Your task to perform on an android device: open app "ZOOM Cloud Meetings" (install if not already installed) Image 0: 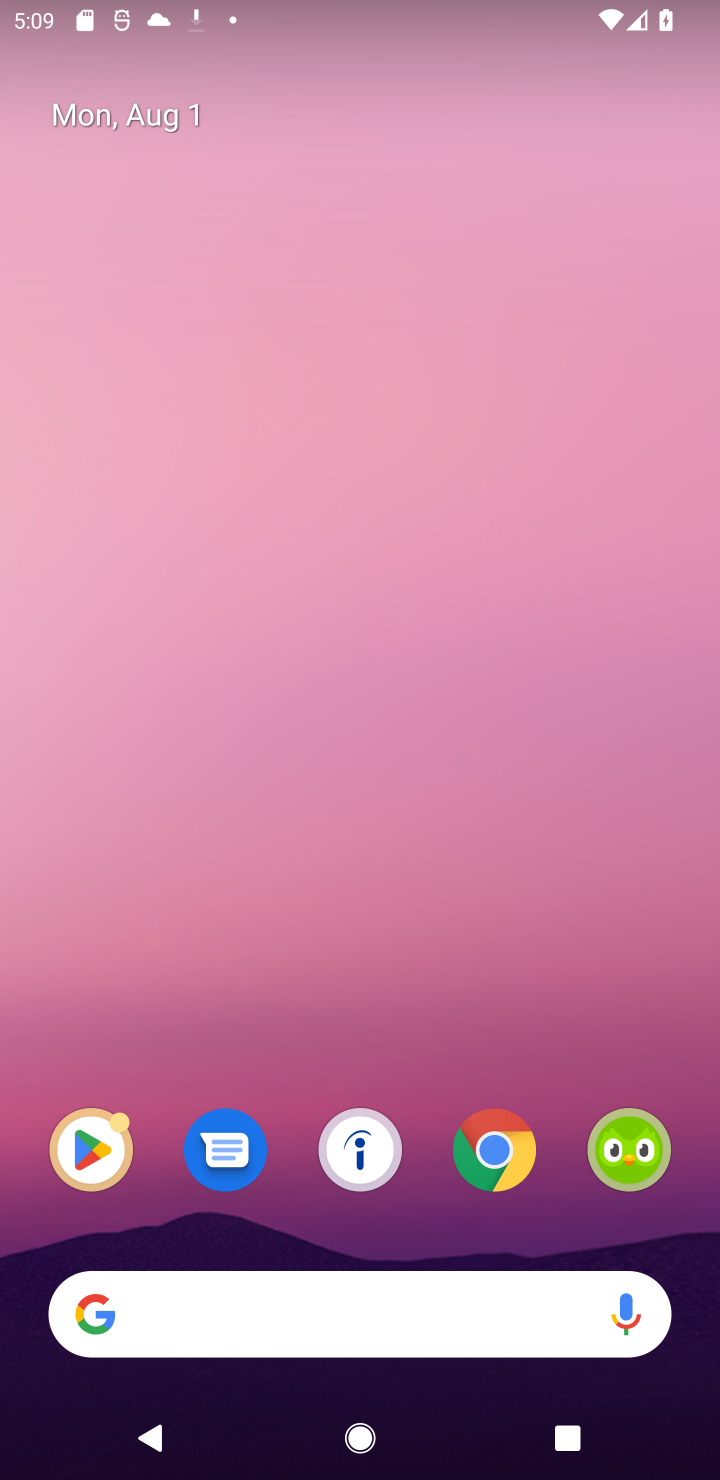
Step 0: drag from (296, 1248) to (288, 100)
Your task to perform on an android device: open app "ZOOM Cloud Meetings" (install if not already installed) Image 1: 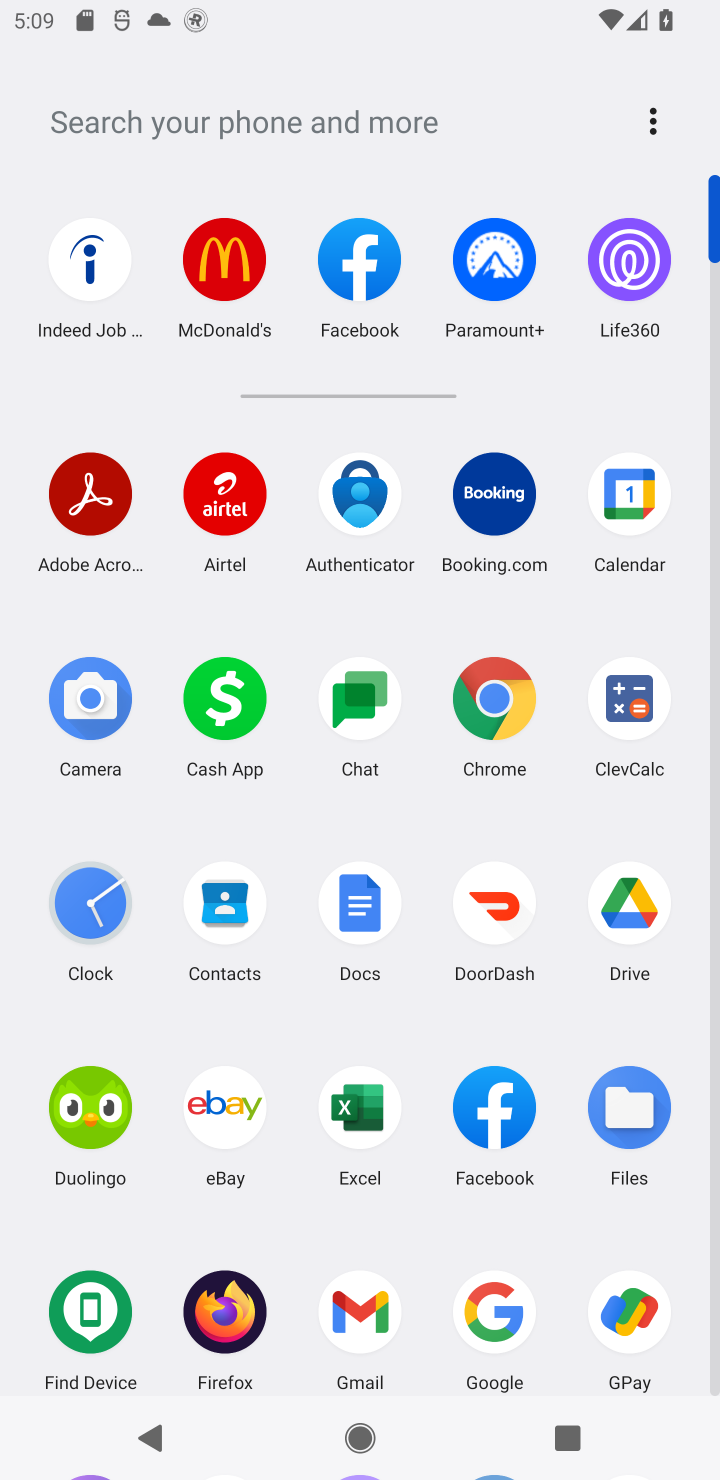
Step 1: click (714, 1365)
Your task to perform on an android device: open app "ZOOM Cloud Meetings" (install if not already installed) Image 2: 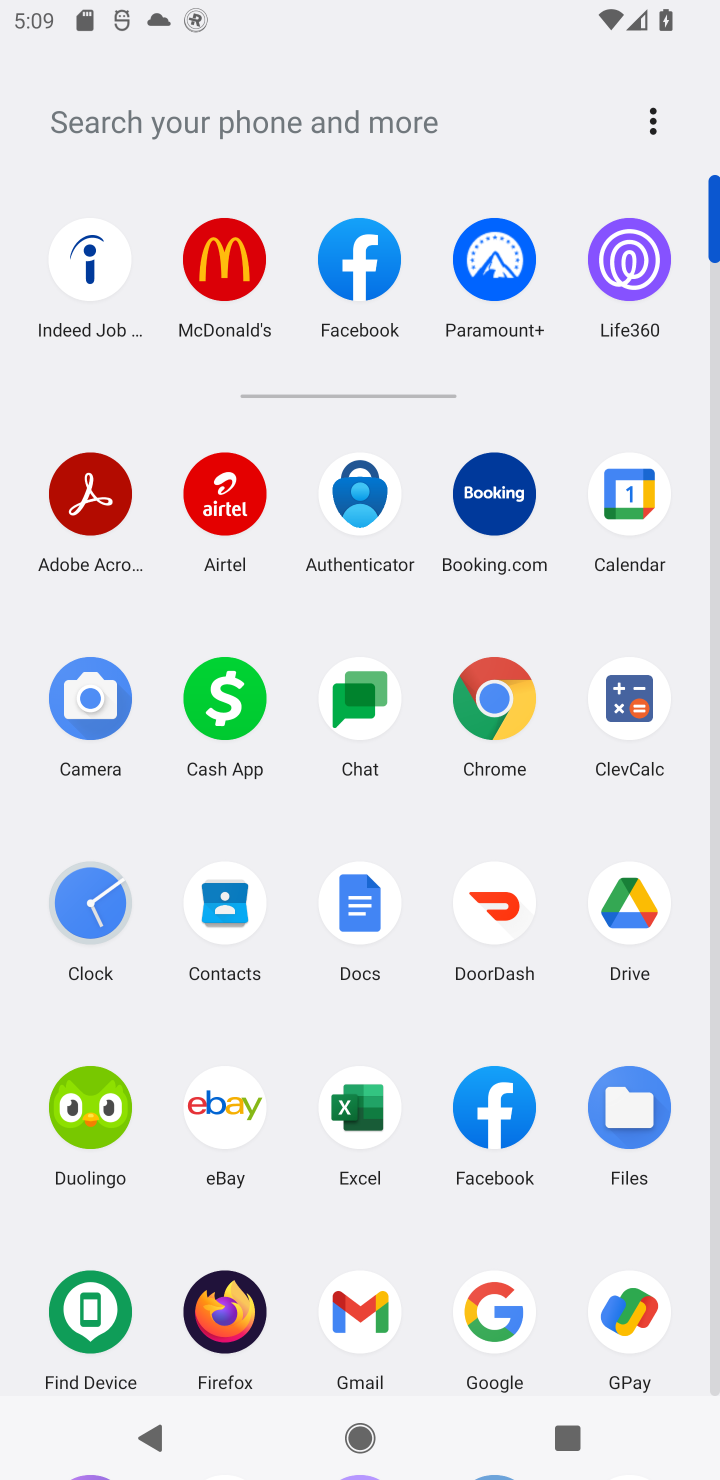
Step 2: click (714, 1377)
Your task to perform on an android device: open app "ZOOM Cloud Meetings" (install if not already installed) Image 3: 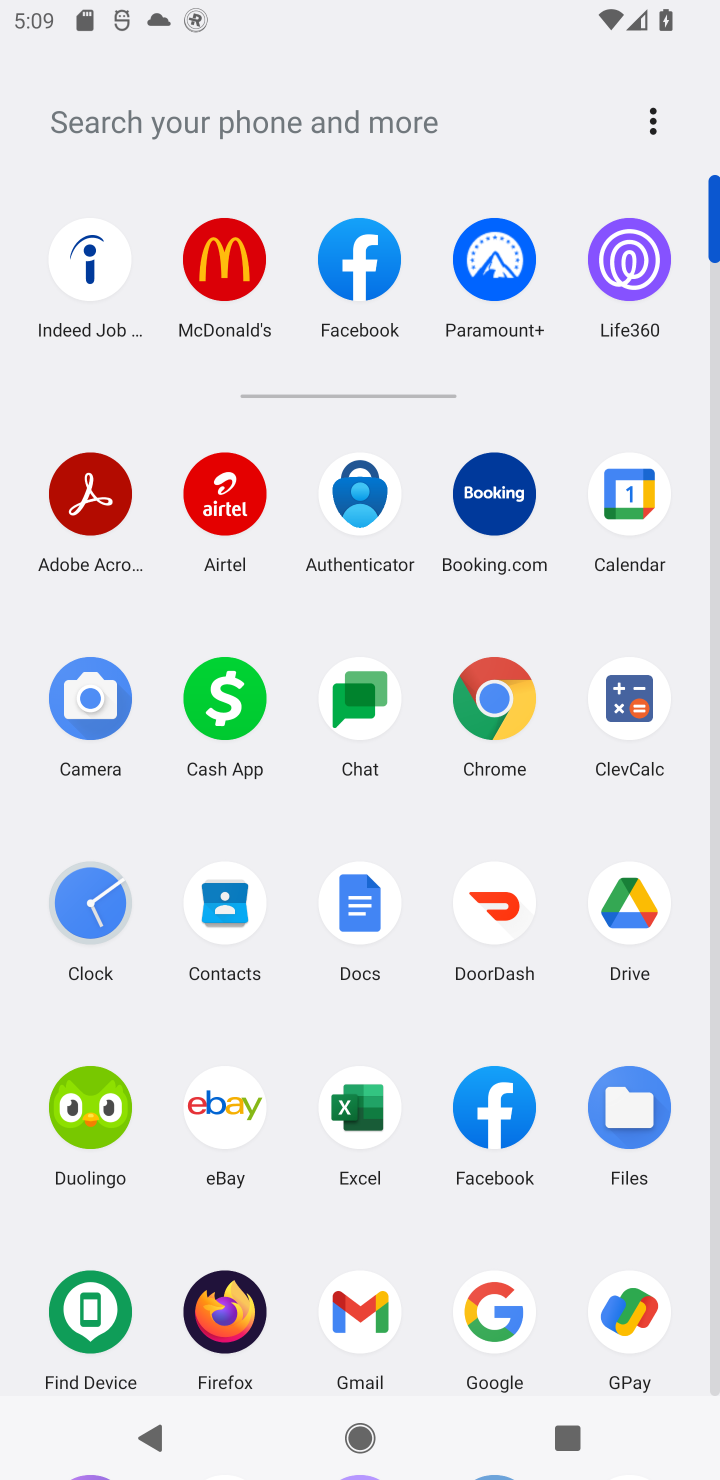
Step 3: click (714, 1377)
Your task to perform on an android device: open app "ZOOM Cloud Meetings" (install if not already installed) Image 4: 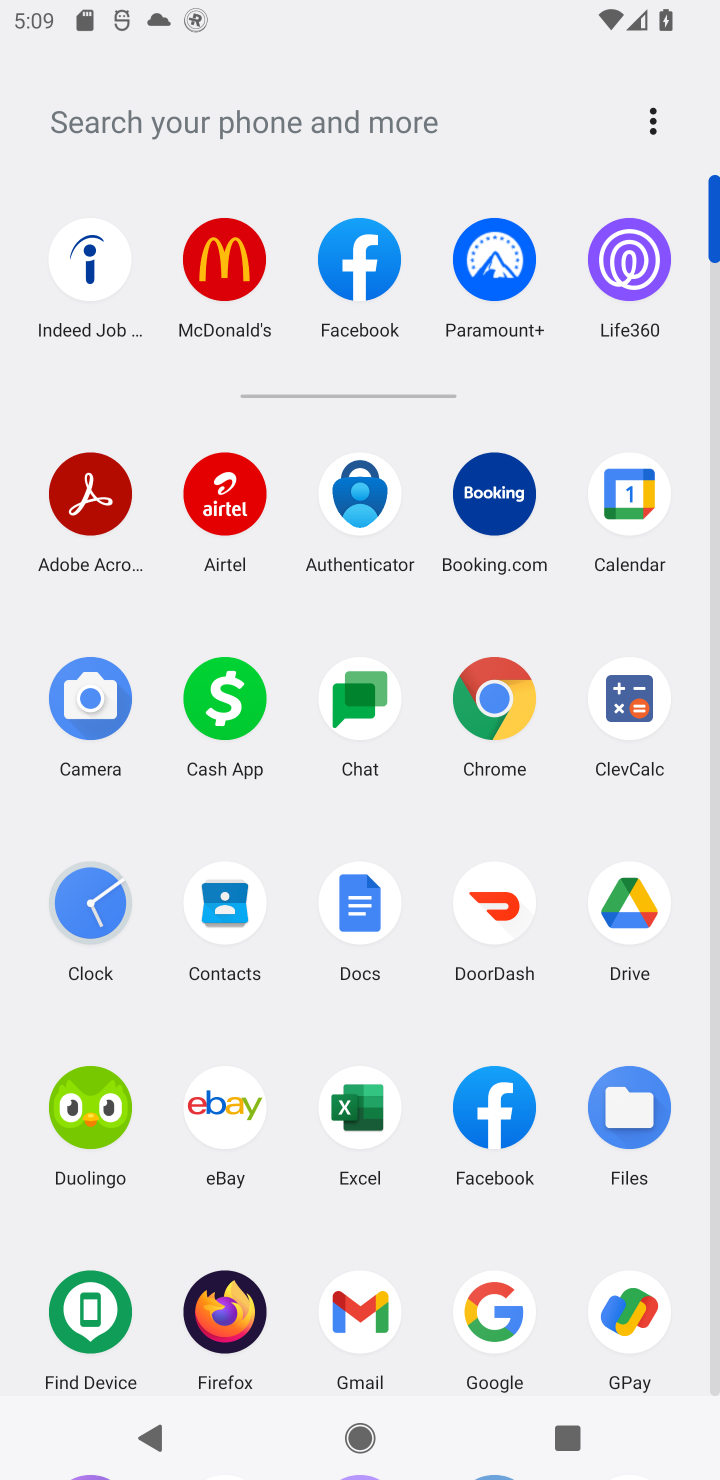
Step 4: task complete